Your task to perform on an android device: Search for the new ikea dresser Image 0: 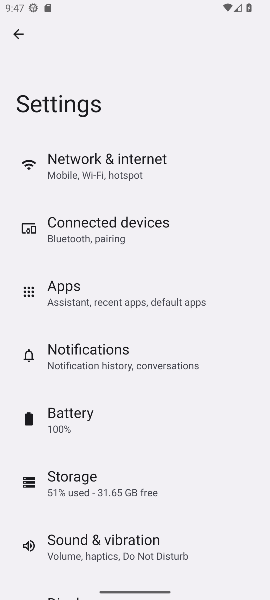
Step 0: press home button
Your task to perform on an android device: Search for the new ikea dresser Image 1: 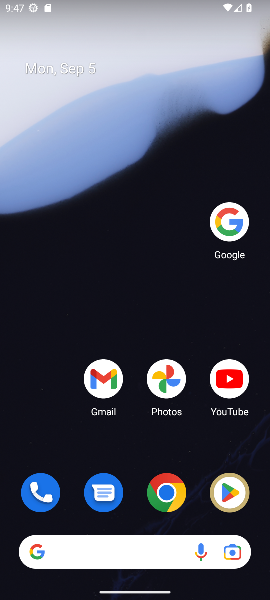
Step 1: click (235, 219)
Your task to perform on an android device: Search for the new ikea dresser Image 2: 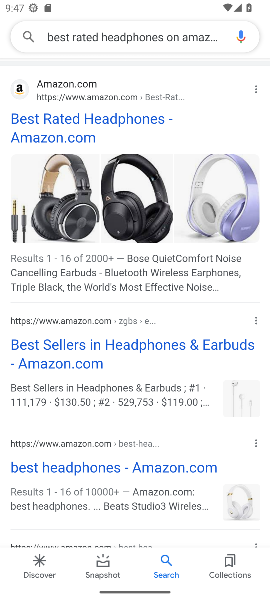
Step 2: click (158, 26)
Your task to perform on an android device: Search for the new ikea dresser Image 3: 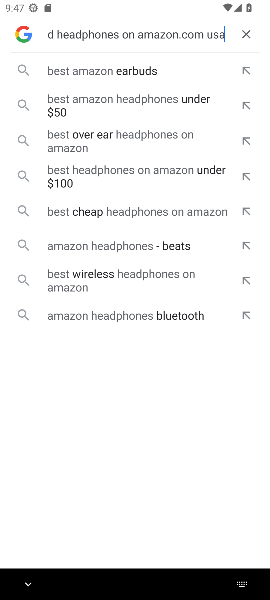
Step 3: click (254, 32)
Your task to perform on an android device: Search for the new ikea dresser Image 4: 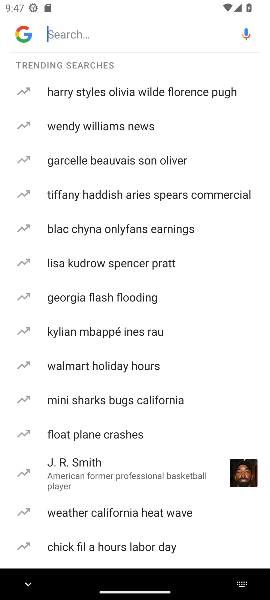
Step 4: click (111, 19)
Your task to perform on an android device: Search for the new ikea dresser Image 5: 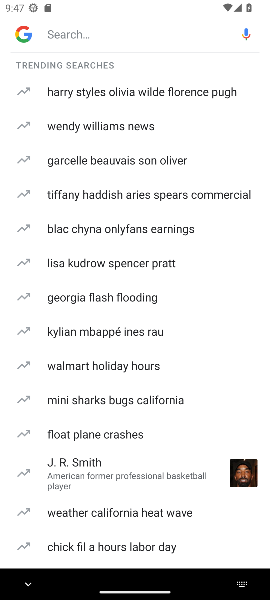
Step 5: type "the new ikea dresser "
Your task to perform on an android device: Search for the new ikea dresser Image 6: 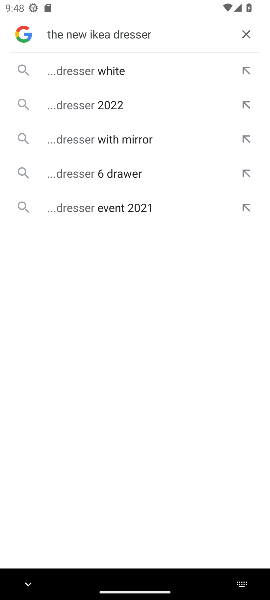
Step 6: click (98, 111)
Your task to perform on an android device: Search for the new ikea dresser Image 7: 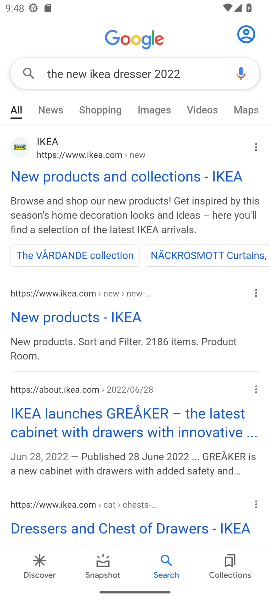
Step 7: click (117, 172)
Your task to perform on an android device: Search for the new ikea dresser Image 8: 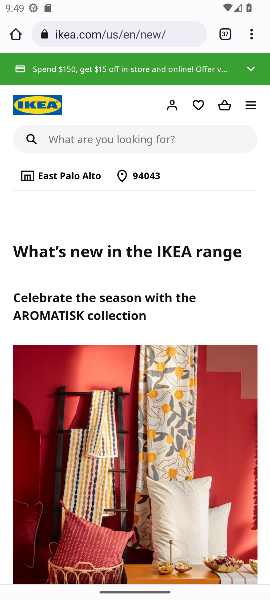
Step 8: task complete